Your task to perform on an android device: Is it going to rain today? Image 0: 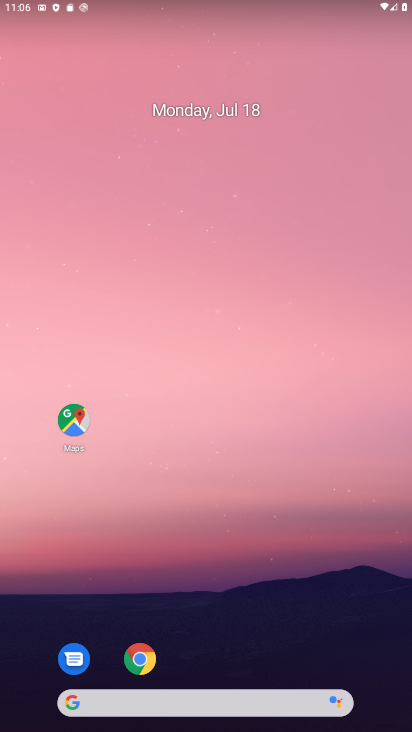
Step 0: drag from (215, 676) to (212, 215)
Your task to perform on an android device: Is it going to rain today? Image 1: 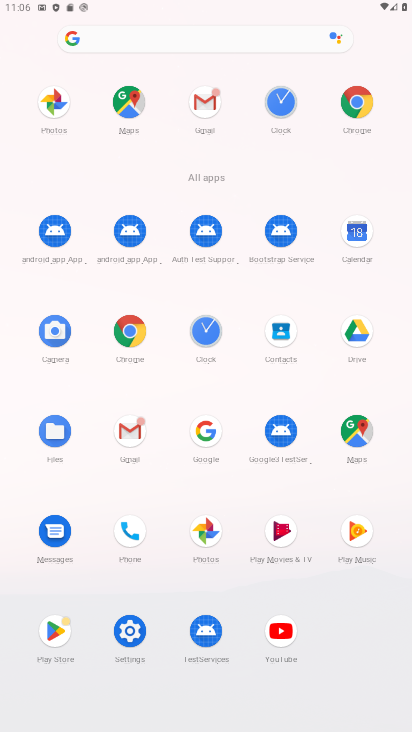
Step 1: click (201, 429)
Your task to perform on an android device: Is it going to rain today? Image 2: 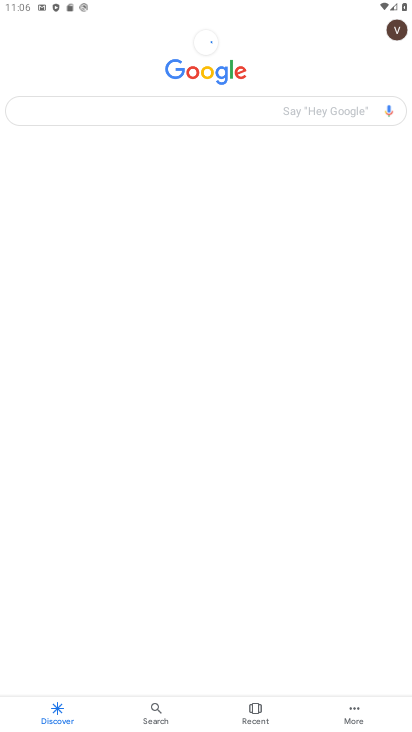
Step 2: click (182, 108)
Your task to perform on an android device: Is it going to rain today? Image 3: 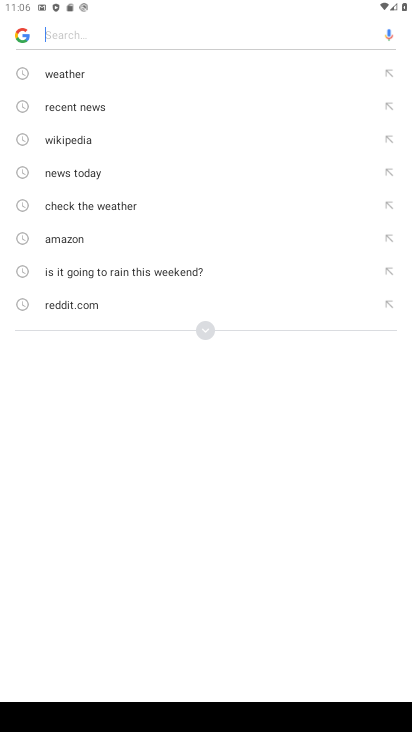
Step 3: click (62, 68)
Your task to perform on an android device: Is it going to rain today? Image 4: 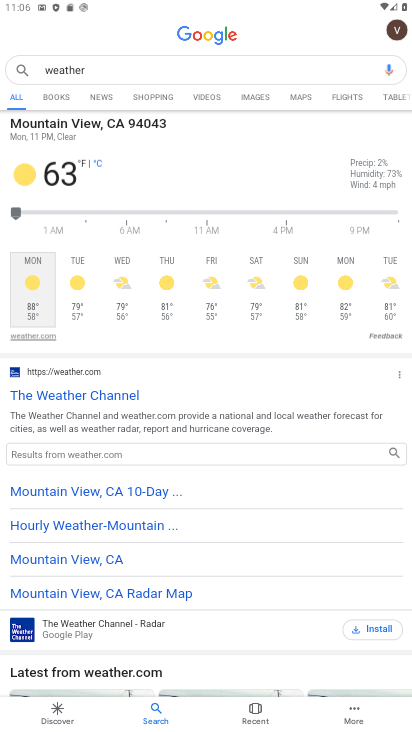
Step 4: click (20, 290)
Your task to perform on an android device: Is it going to rain today? Image 5: 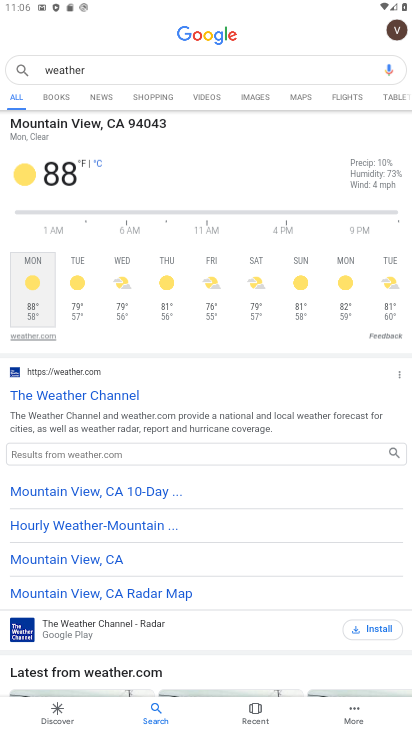
Step 5: click (30, 278)
Your task to perform on an android device: Is it going to rain today? Image 6: 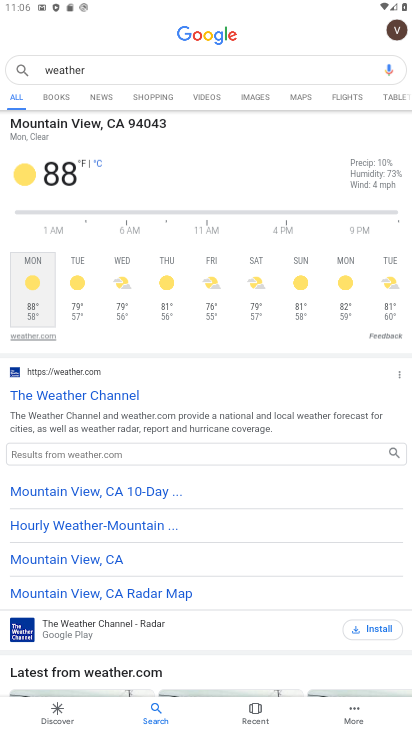
Step 6: task complete